Your task to perform on an android device: Open Google Maps and go to "Timeline" Image 0: 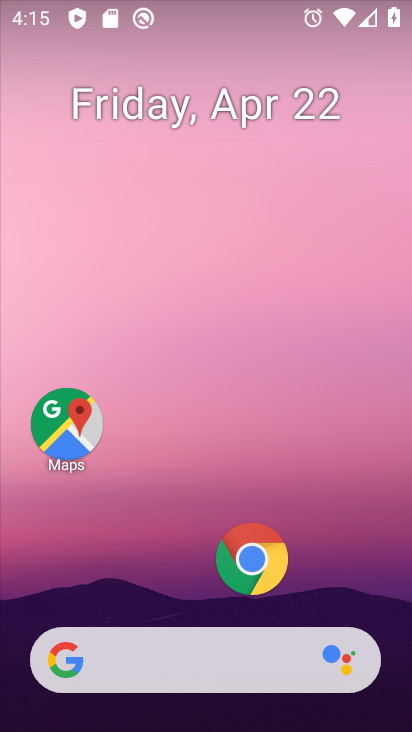
Step 0: click (95, 430)
Your task to perform on an android device: Open Google Maps and go to "Timeline" Image 1: 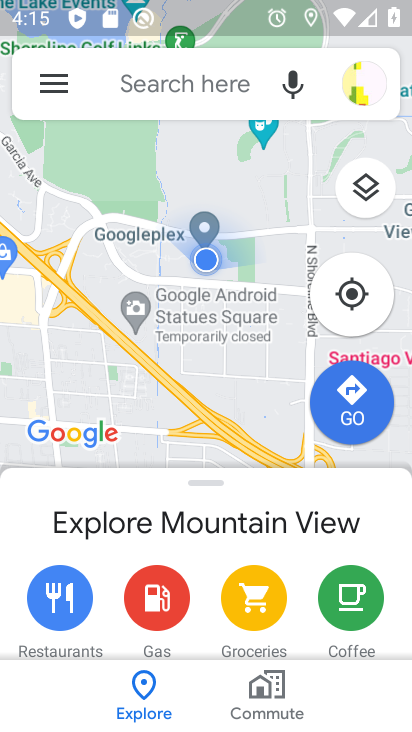
Step 1: click (52, 85)
Your task to perform on an android device: Open Google Maps and go to "Timeline" Image 2: 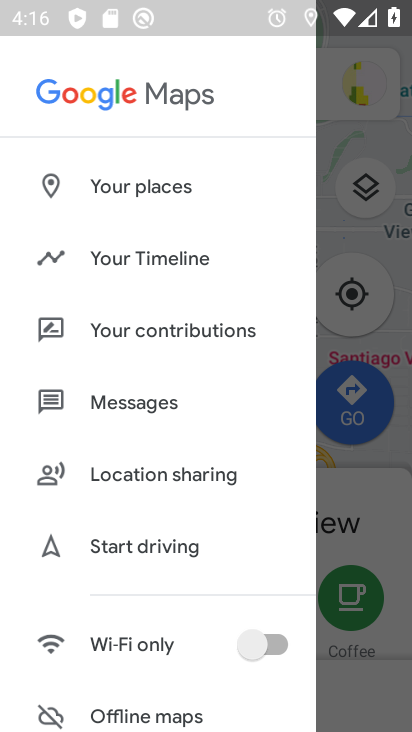
Step 2: click (155, 262)
Your task to perform on an android device: Open Google Maps and go to "Timeline" Image 3: 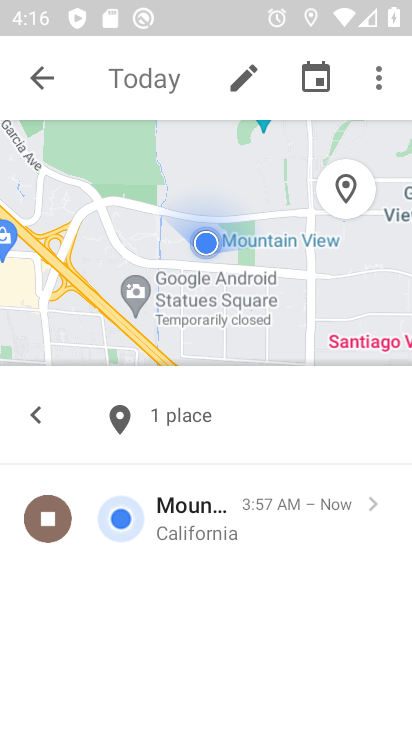
Step 3: task complete